Your task to perform on an android device: delete browsing data in the chrome app Image 0: 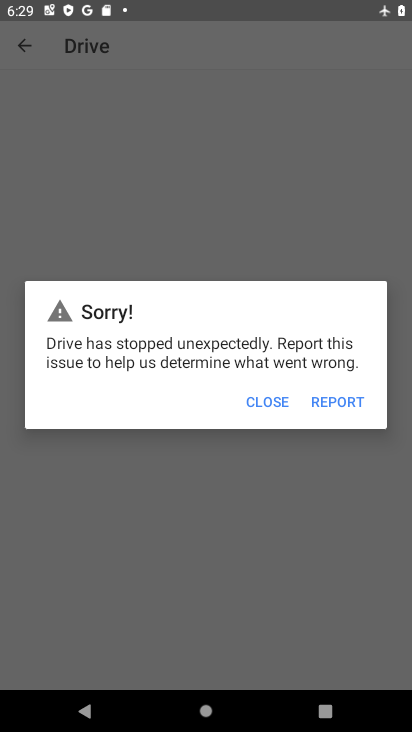
Step 0: press home button
Your task to perform on an android device: delete browsing data in the chrome app Image 1: 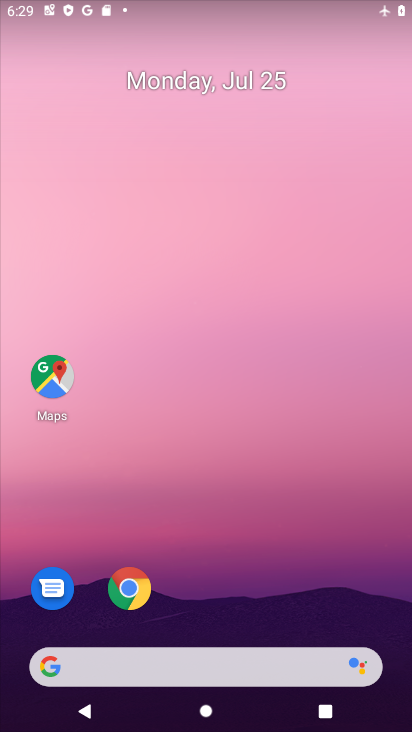
Step 1: click (134, 586)
Your task to perform on an android device: delete browsing data in the chrome app Image 2: 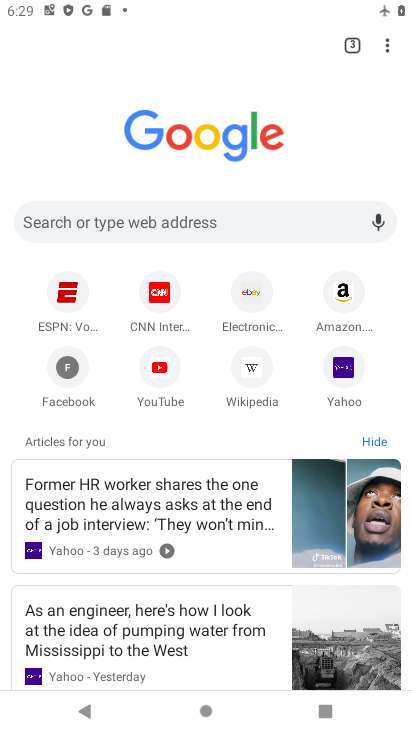
Step 2: click (396, 52)
Your task to perform on an android device: delete browsing data in the chrome app Image 3: 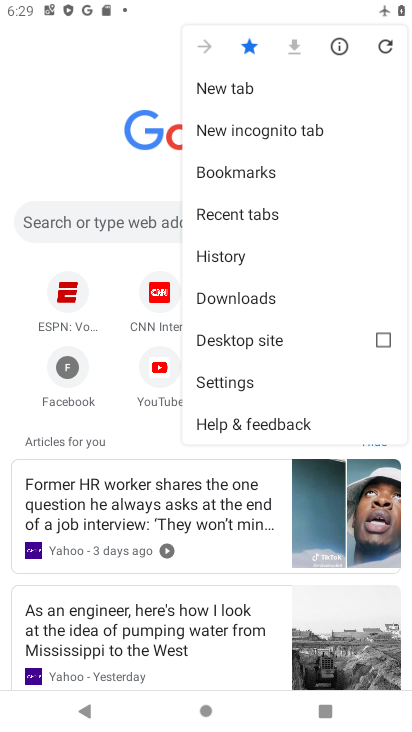
Step 3: click (252, 259)
Your task to perform on an android device: delete browsing data in the chrome app Image 4: 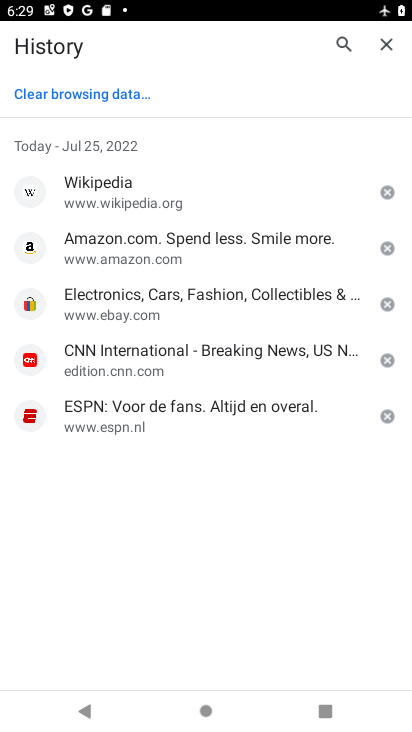
Step 4: click (108, 94)
Your task to perform on an android device: delete browsing data in the chrome app Image 5: 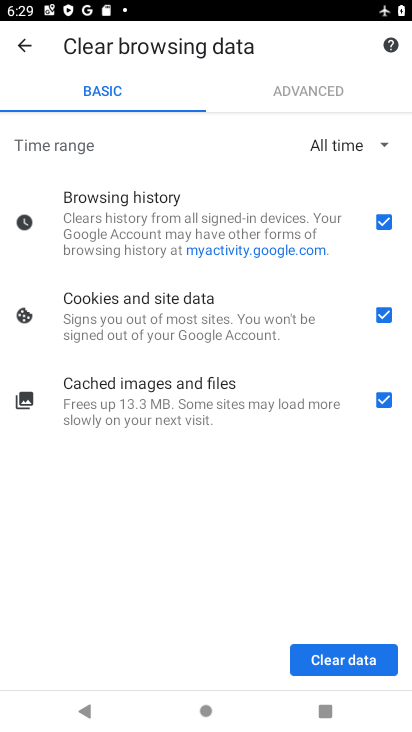
Step 5: click (338, 667)
Your task to perform on an android device: delete browsing data in the chrome app Image 6: 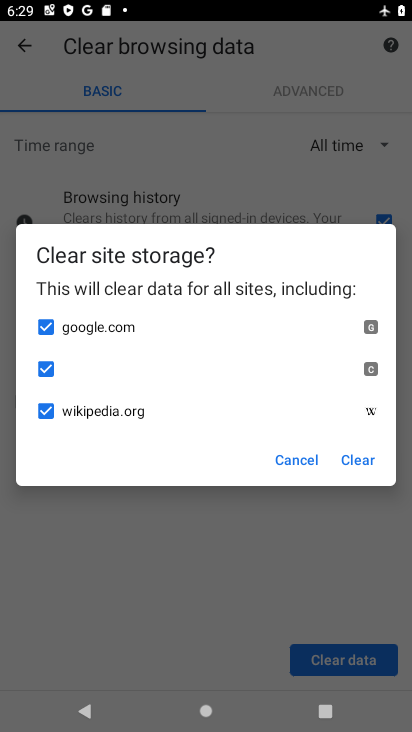
Step 6: click (362, 461)
Your task to perform on an android device: delete browsing data in the chrome app Image 7: 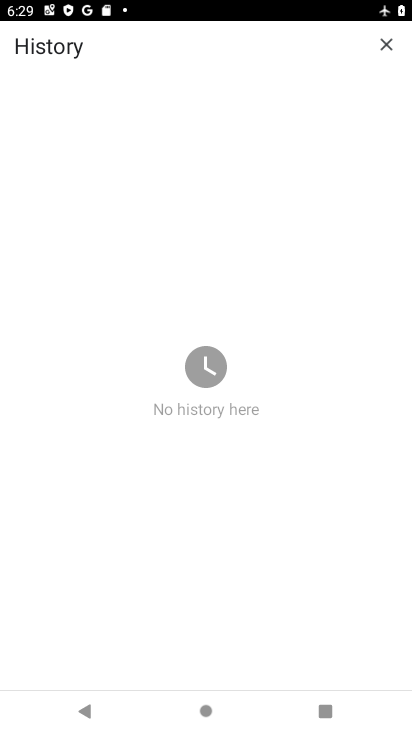
Step 7: task complete